Your task to perform on an android device: open wifi settings Image 0: 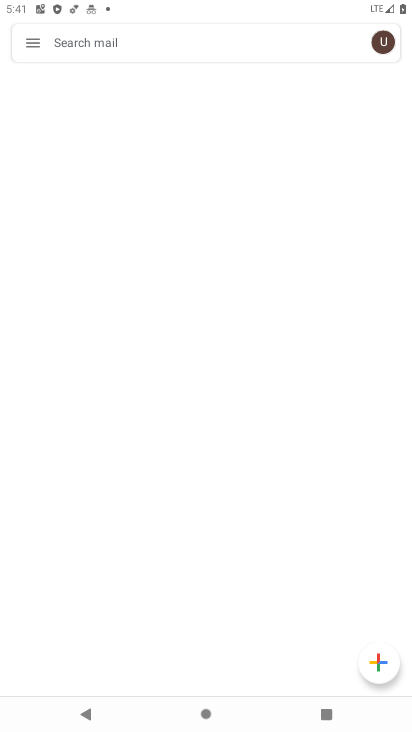
Step 0: press home button
Your task to perform on an android device: open wifi settings Image 1: 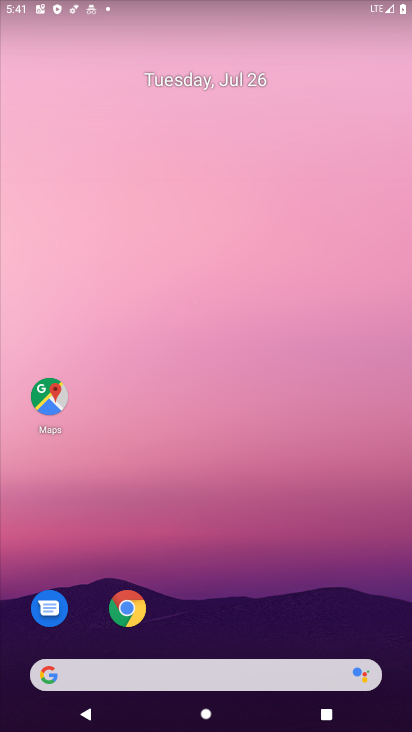
Step 1: drag from (180, 638) to (35, 67)
Your task to perform on an android device: open wifi settings Image 2: 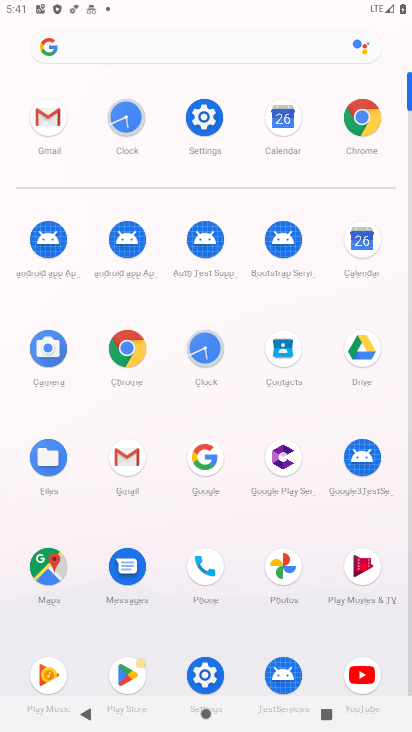
Step 2: click (204, 117)
Your task to perform on an android device: open wifi settings Image 3: 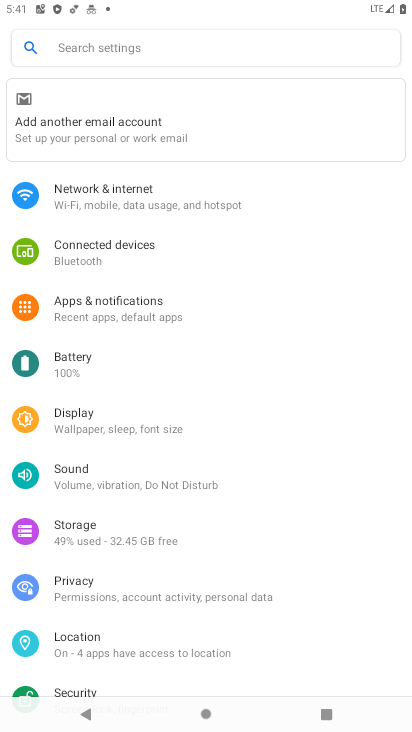
Step 3: click (93, 202)
Your task to perform on an android device: open wifi settings Image 4: 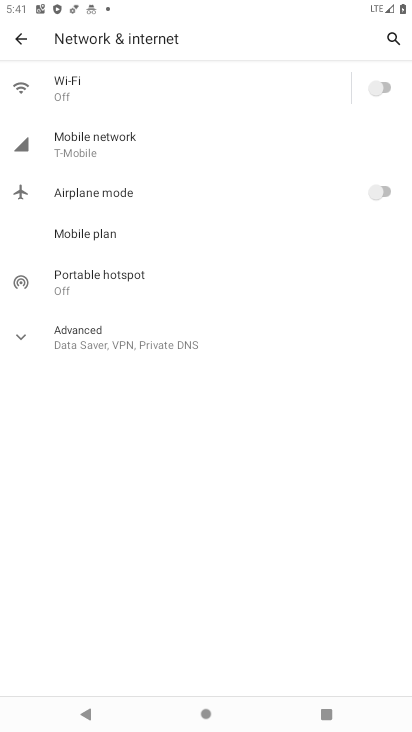
Step 4: click (62, 93)
Your task to perform on an android device: open wifi settings Image 5: 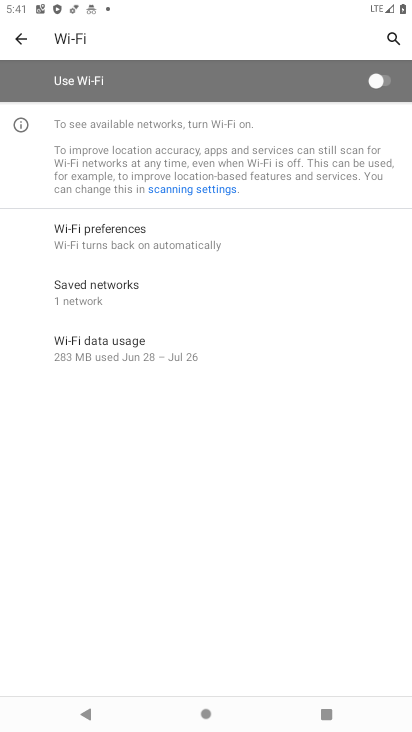
Step 5: click (380, 81)
Your task to perform on an android device: open wifi settings Image 6: 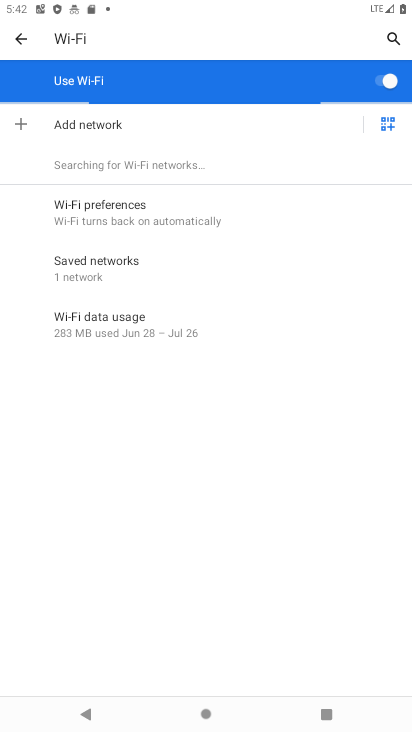
Step 6: task complete